Your task to perform on an android device: Open internet settings Image 0: 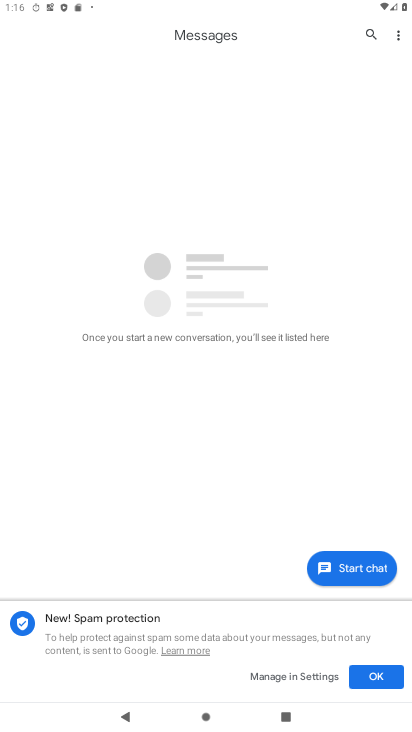
Step 0: press home button
Your task to perform on an android device: Open internet settings Image 1: 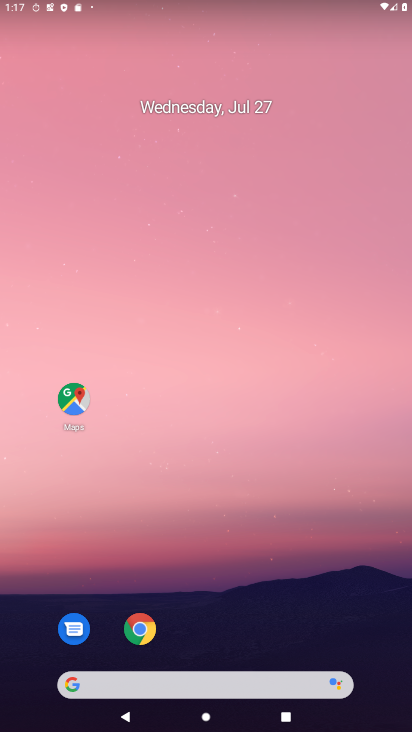
Step 1: drag from (304, 559) to (167, 6)
Your task to perform on an android device: Open internet settings Image 2: 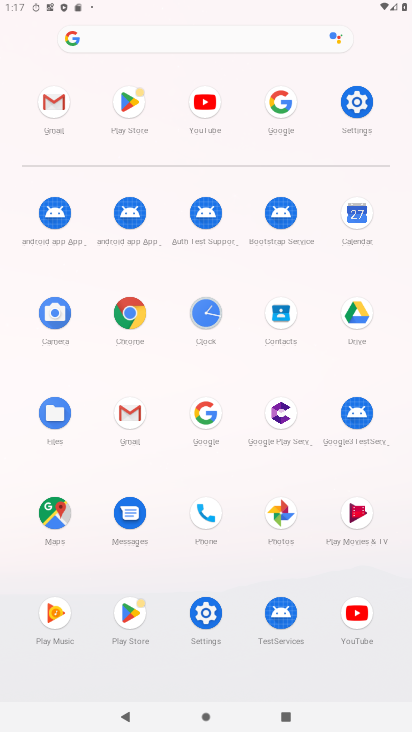
Step 2: click (346, 102)
Your task to perform on an android device: Open internet settings Image 3: 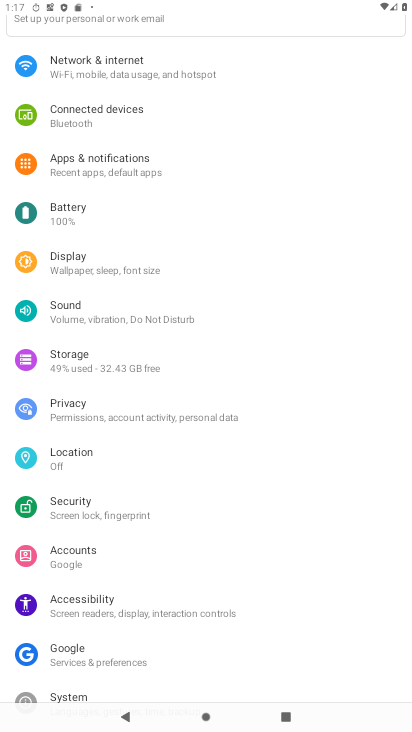
Step 3: click (93, 65)
Your task to perform on an android device: Open internet settings Image 4: 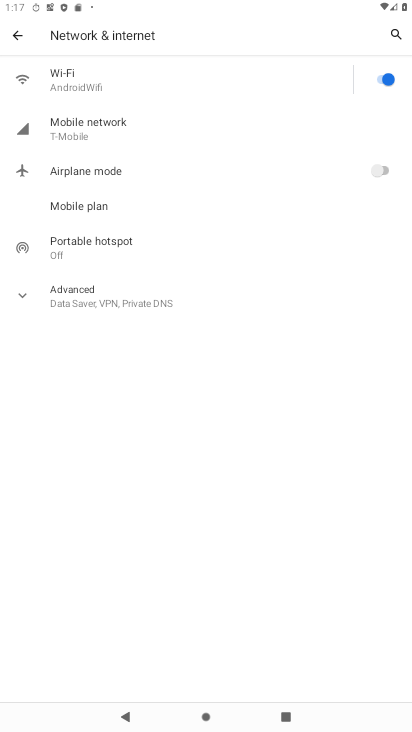
Step 4: task complete